Your task to perform on an android device: Open battery settings Image 0: 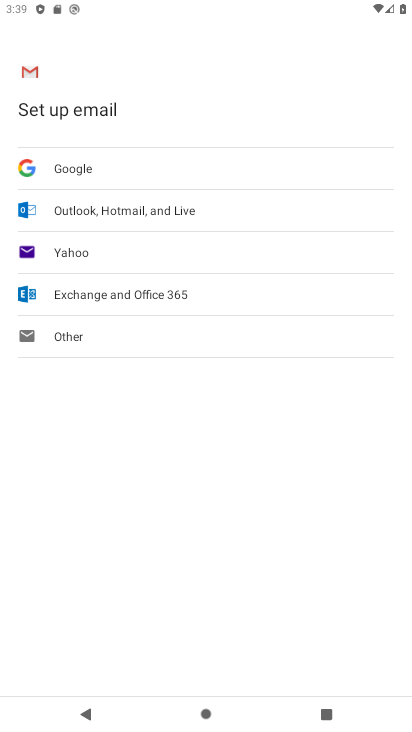
Step 0: press home button
Your task to perform on an android device: Open battery settings Image 1: 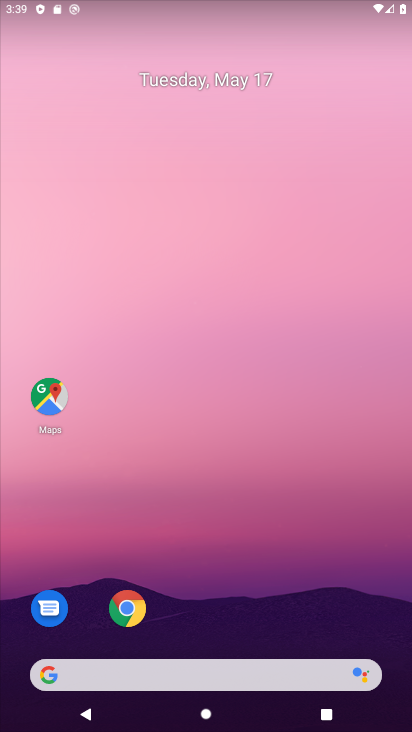
Step 1: drag from (183, 660) to (211, 240)
Your task to perform on an android device: Open battery settings Image 2: 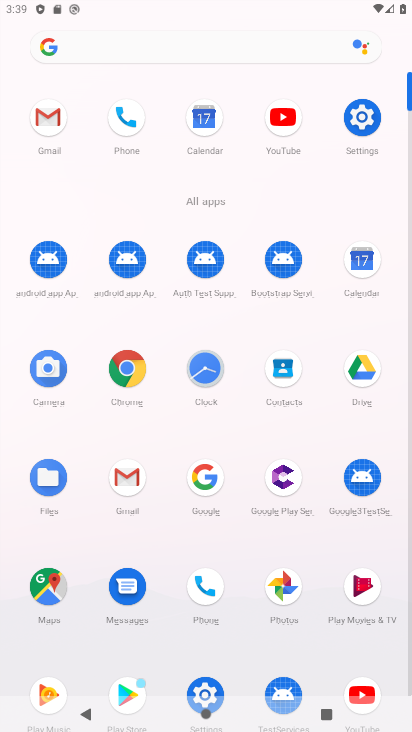
Step 2: click (359, 117)
Your task to perform on an android device: Open battery settings Image 3: 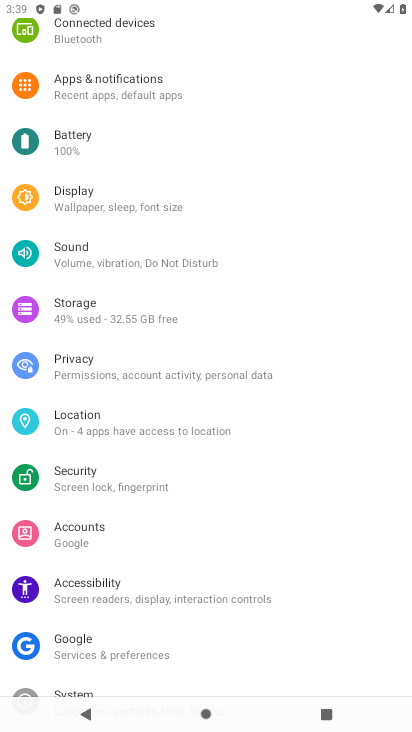
Step 3: click (86, 132)
Your task to perform on an android device: Open battery settings Image 4: 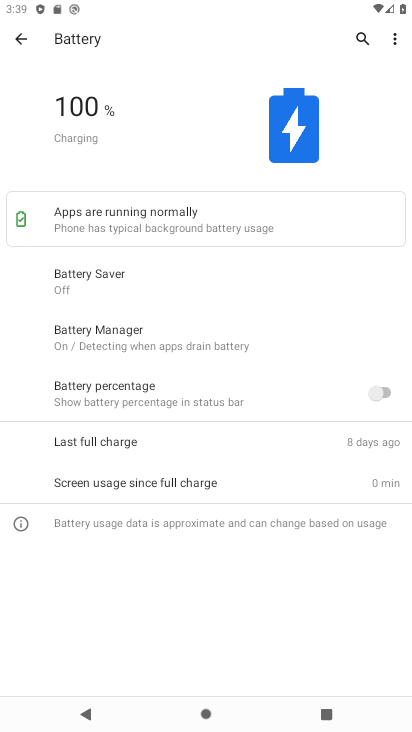
Step 4: task complete